Your task to perform on an android device: Turn off the flashlight Image 0: 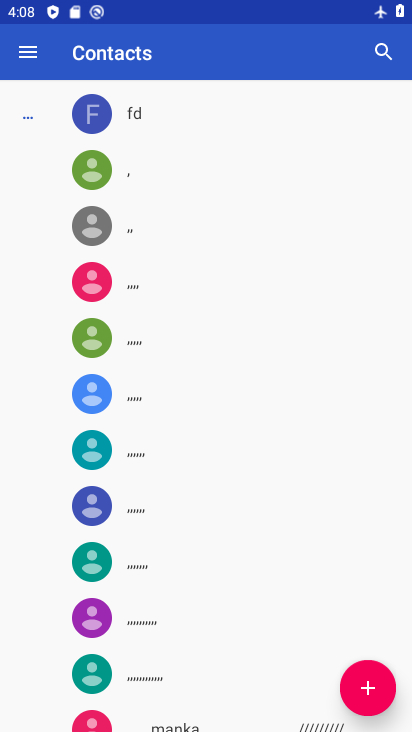
Step 0: press home button
Your task to perform on an android device: Turn off the flashlight Image 1: 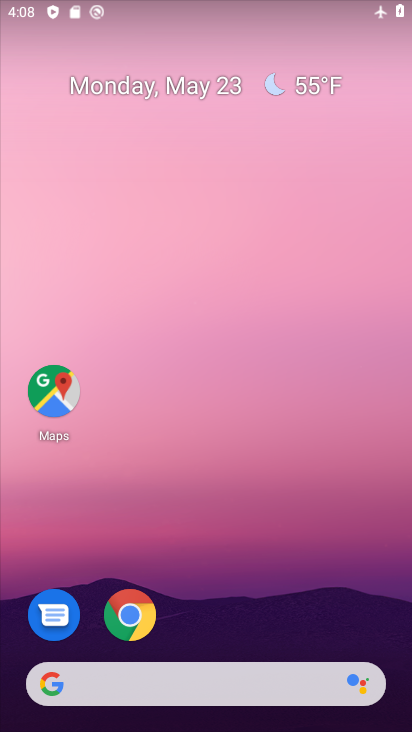
Step 1: drag from (214, 13) to (199, 501)
Your task to perform on an android device: Turn off the flashlight Image 2: 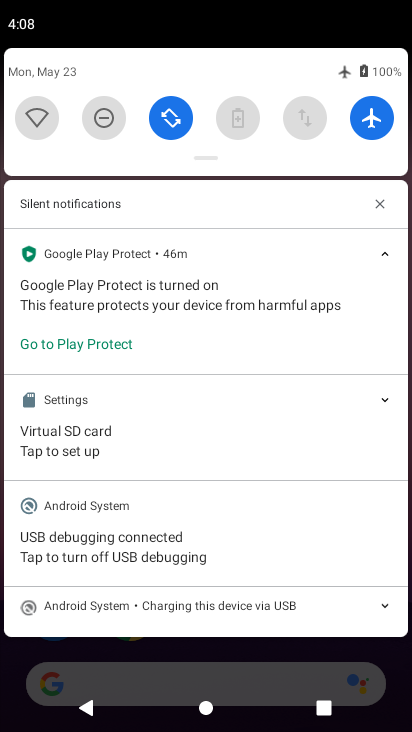
Step 2: drag from (200, 77) to (196, 357)
Your task to perform on an android device: Turn off the flashlight Image 3: 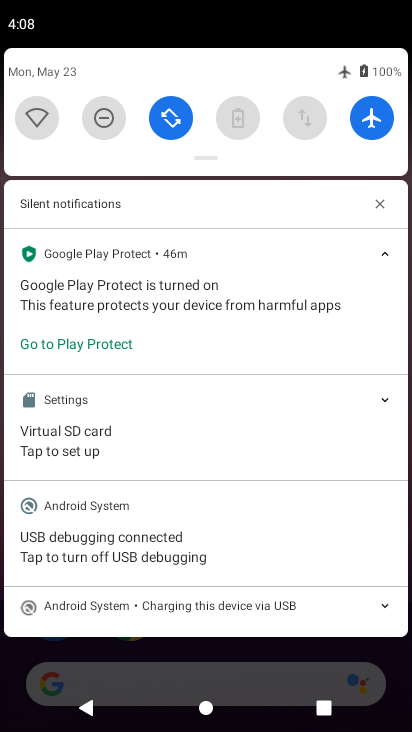
Step 3: drag from (194, 74) to (209, 378)
Your task to perform on an android device: Turn off the flashlight Image 4: 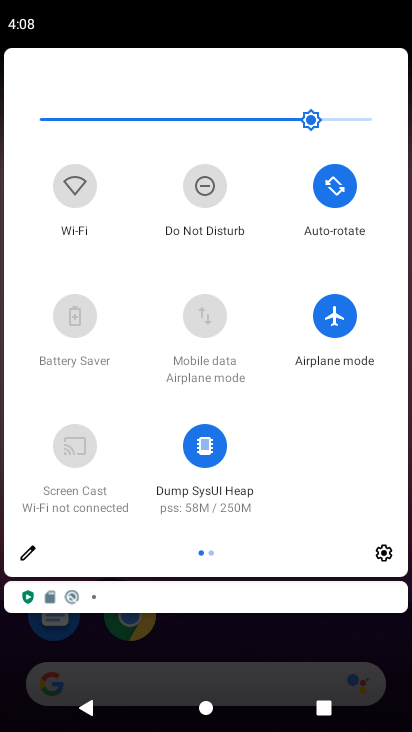
Step 4: click (27, 558)
Your task to perform on an android device: Turn off the flashlight Image 5: 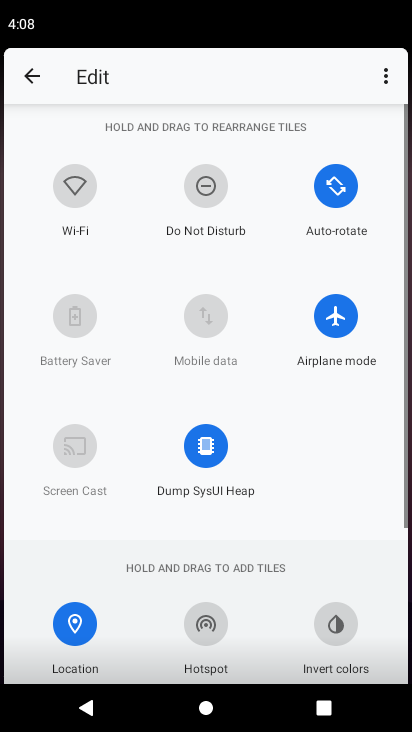
Step 5: task complete